Your task to perform on an android device: Open Chrome and go to the settings page Image 0: 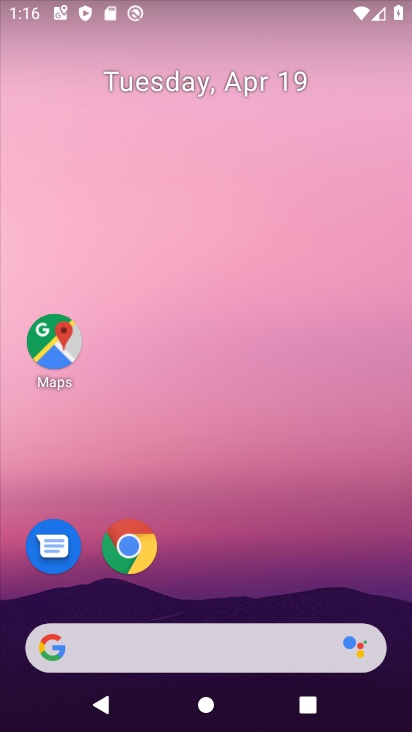
Step 0: click (144, 542)
Your task to perform on an android device: Open Chrome and go to the settings page Image 1: 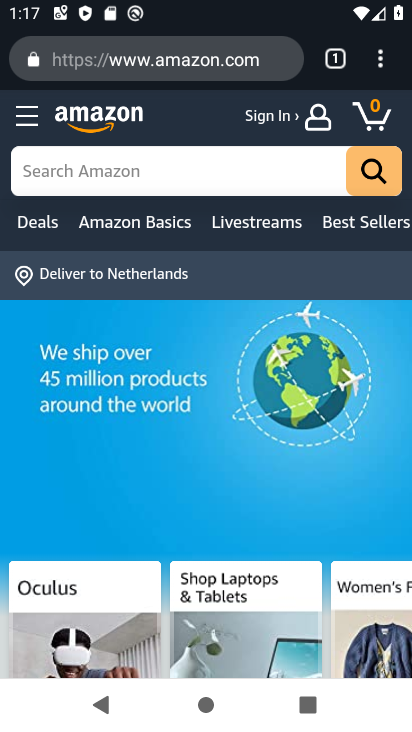
Step 1: click (376, 58)
Your task to perform on an android device: Open Chrome and go to the settings page Image 2: 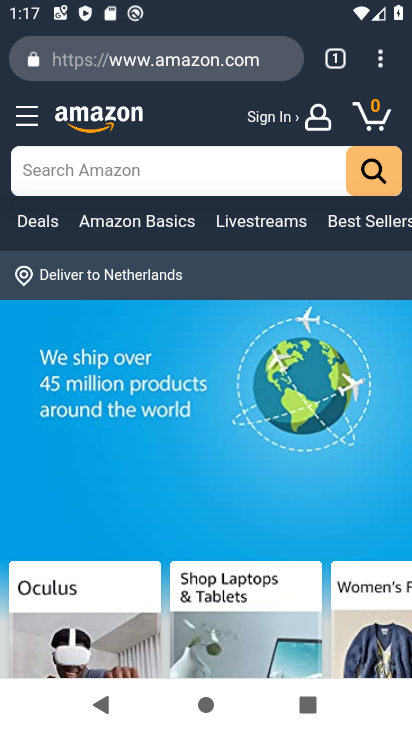
Step 2: click (384, 54)
Your task to perform on an android device: Open Chrome and go to the settings page Image 3: 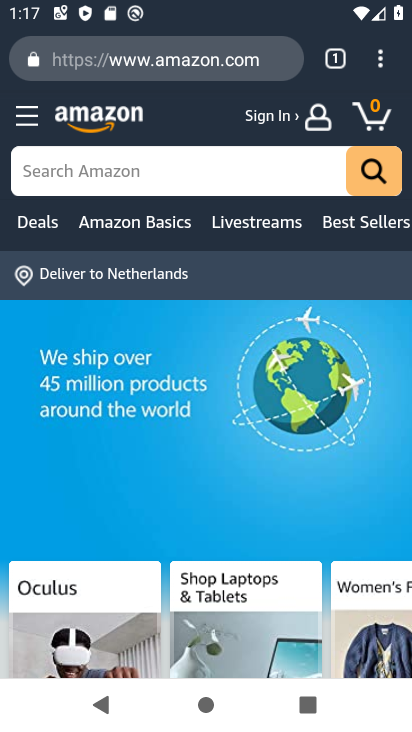
Step 3: task complete